Your task to perform on an android device: manage bookmarks in the chrome app Image 0: 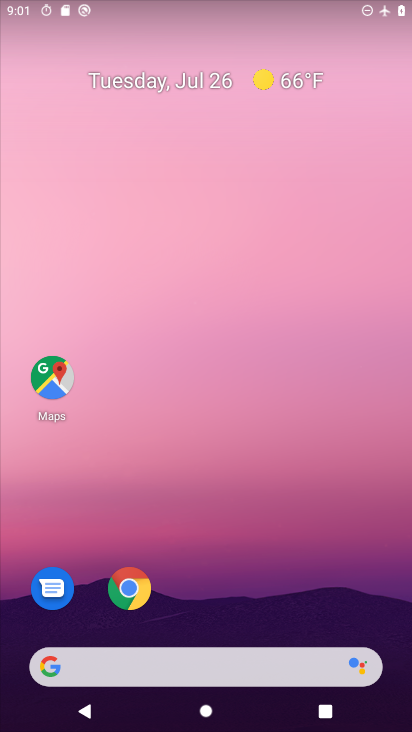
Step 0: click (126, 590)
Your task to perform on an android device: manage bookmarks in the chrome app Image 1: 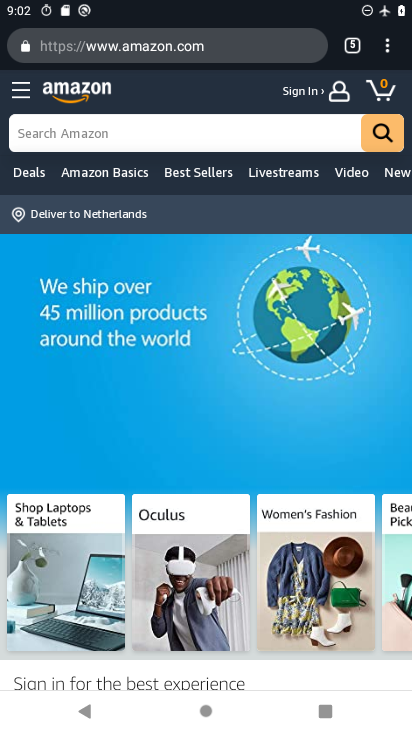
Step 1: click (389, 53)
Your task to perform on an android device: manage bookmarks in the chrome app Image 2: 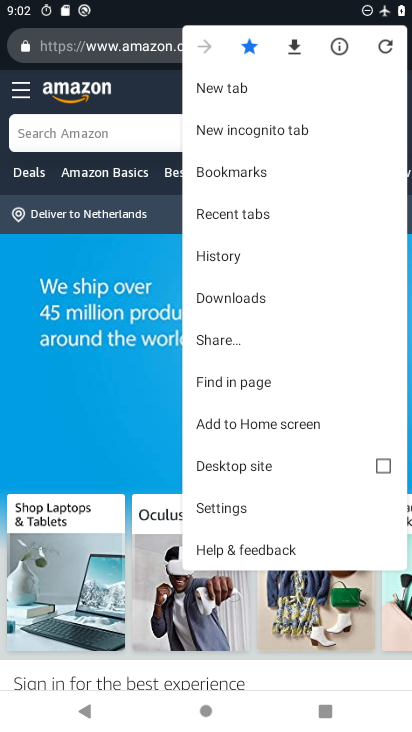
Step 2: click (220, 171)
Your task to perform on an android device: manage bookmarks in the chrome app Image 3: 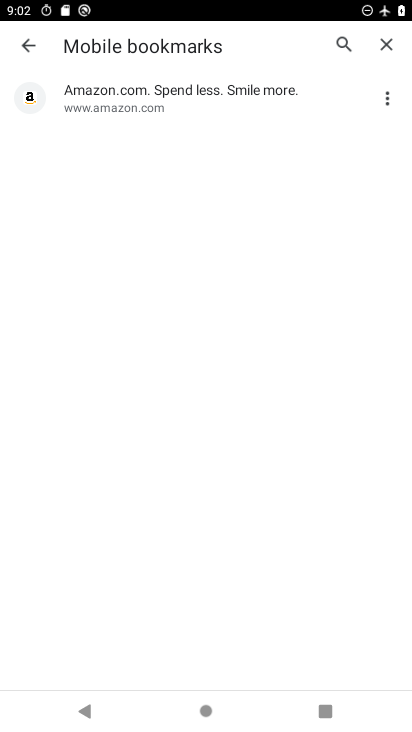
Step 3: click (389, 100)
Your task to perform on an android device: manage bookmarks in the chrome app Image 4: 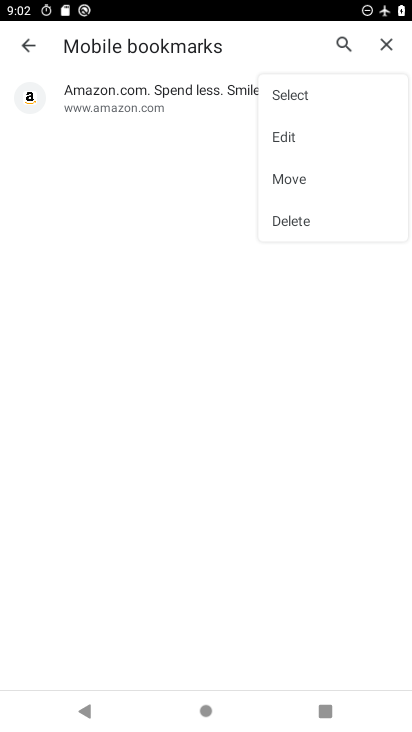
Step 4: click (290, 131)
Your task to perform on an android device: manage bookmarks in the chrome app Image 5: 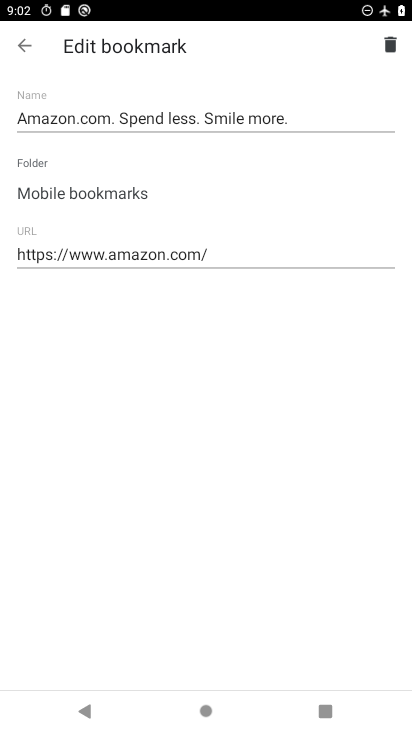
Step 5: click (264, 118)
Your task to perform on an android device: manage bookmarks in the chrome app Image 6: 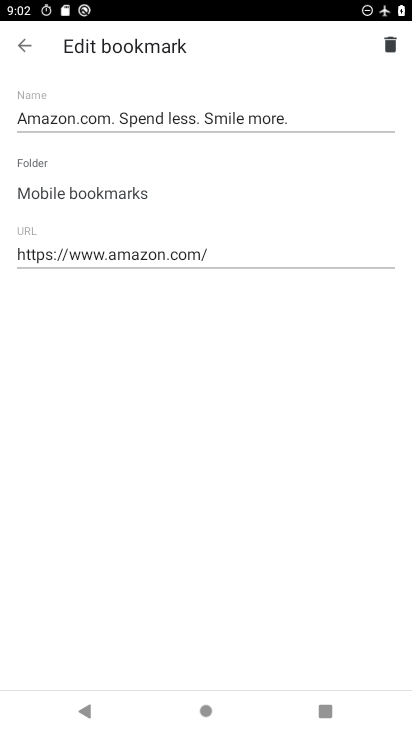
Step 6: click (264, 118)
Your task to perform on an android device: manage bookmarks in the chrome app Image 7: 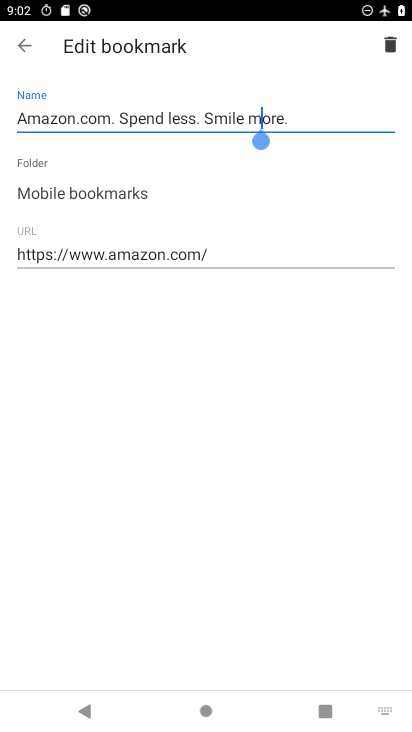
Step 7: click (264, 118)
Your task to perform on an android device: manage bookmarks in the chrome app Image 8: 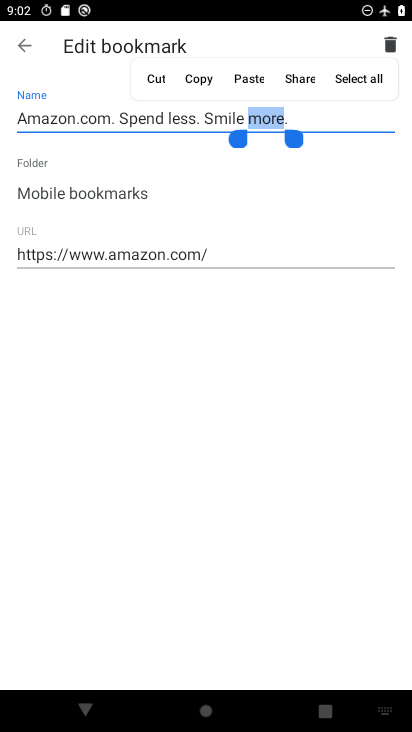
Step 8: click (150, 80)
Your task to perform on an android device: manage bookmarks in the chrome app Image 9: 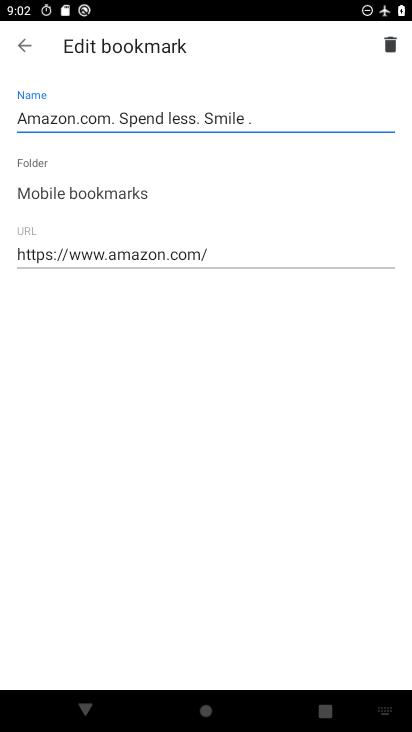
Step 9: click (25, 42)
Your task to perform on an android device: manage bookmarks in the chrome app Image 10: 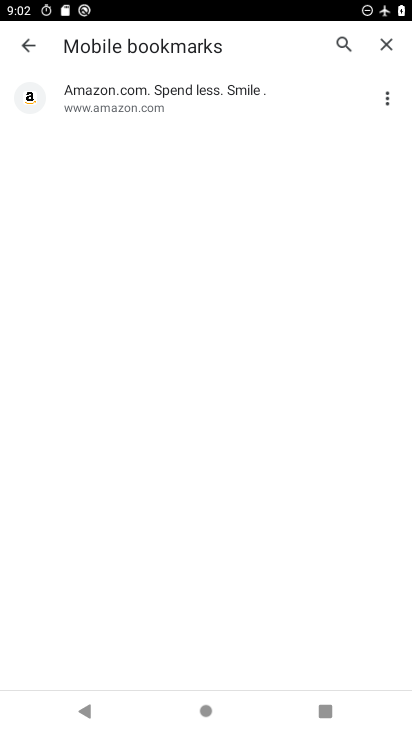
Step 10: task complete